Your task to perform on an android device: Check the weather Image 0: 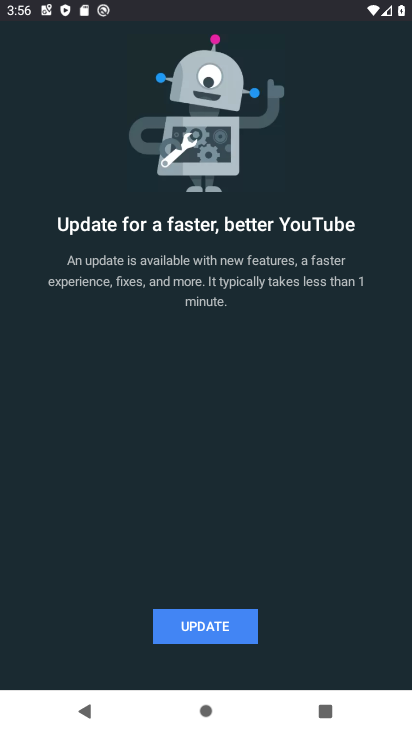
Step 0: press back button
Your task to perform on an android device: Check the weather Image 1: 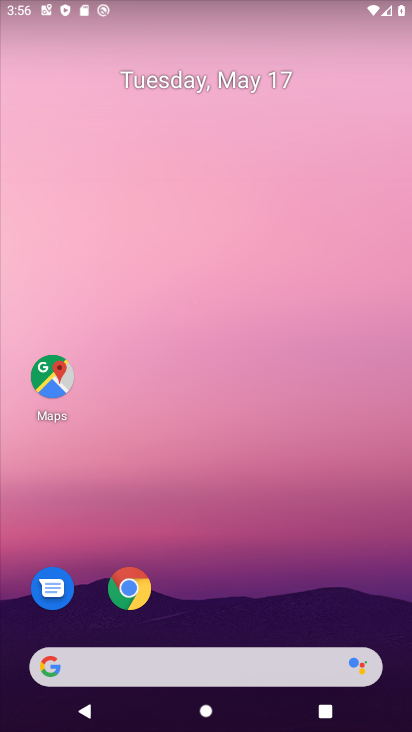
Step 1: click (131, 589)
Your task to perform on an android device: Check the weather Image 2: 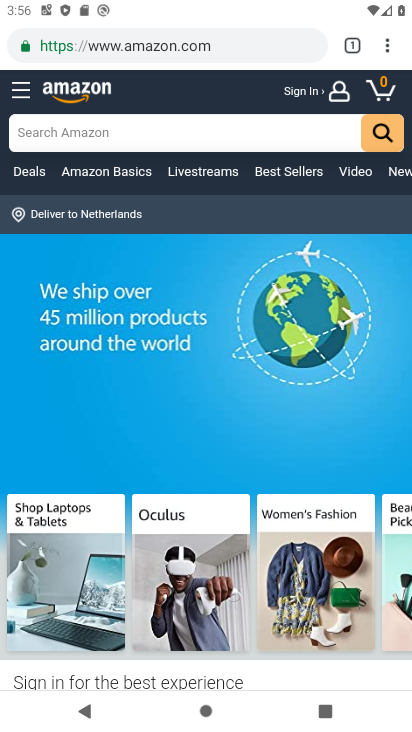
Step 2: click (279, 45)
Your task to perform on an android device: Check the weather Image 3: 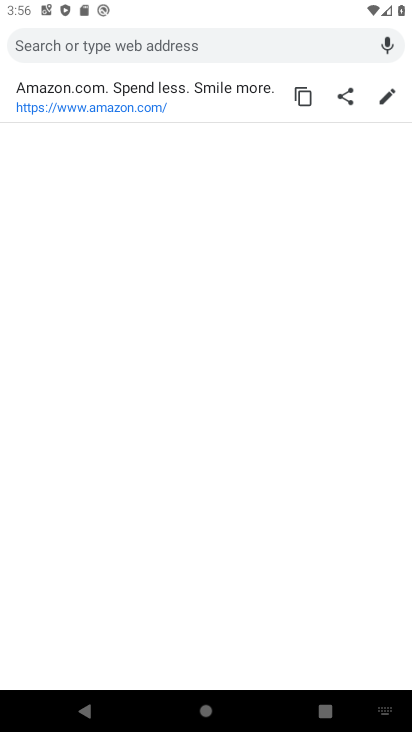
Step 3: type "weather"
Your task to perform on an android device: Check the weather Image 4: 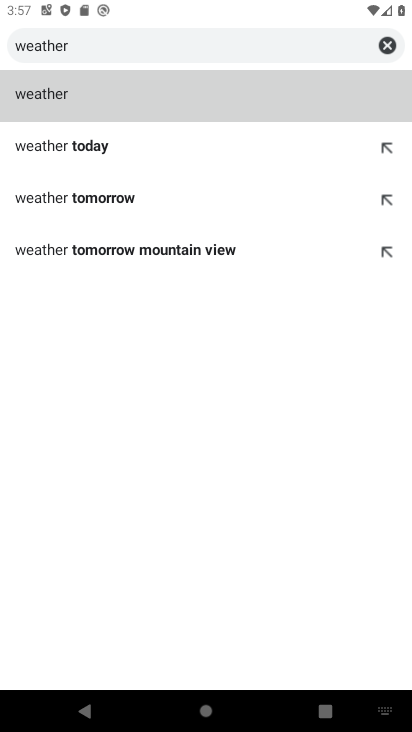
Step 4: click (90, 100)
Your task to perform on an android device: Check the weather Image 5: 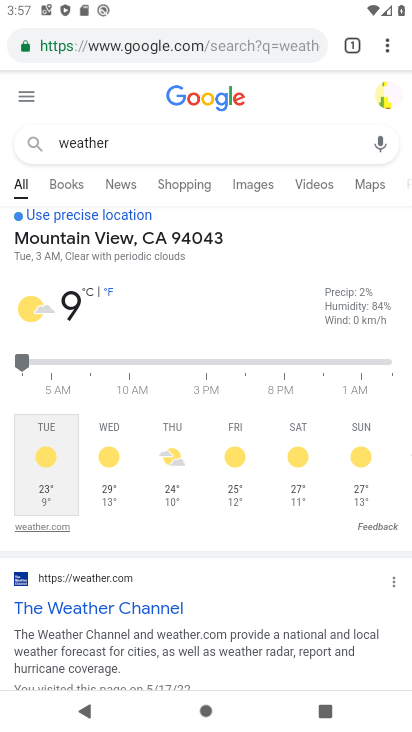
Step 5: task complete